Your task to perform on an android device: Go to sound settings Image 0: 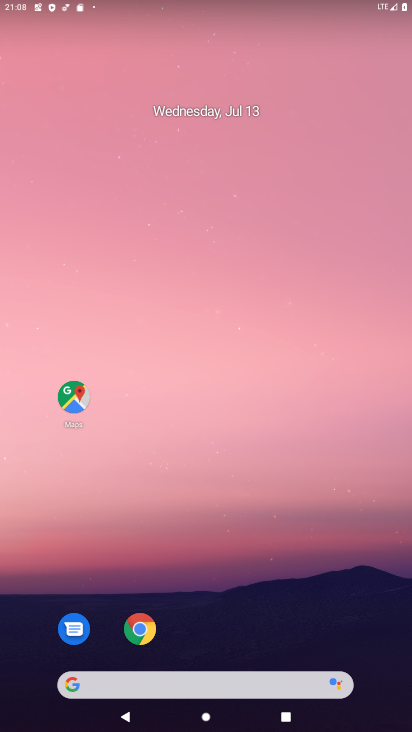
Step 0: drag from (206, 630) to (233, 56)
Your task to perform on an android device: Go to sound settings Image 1: 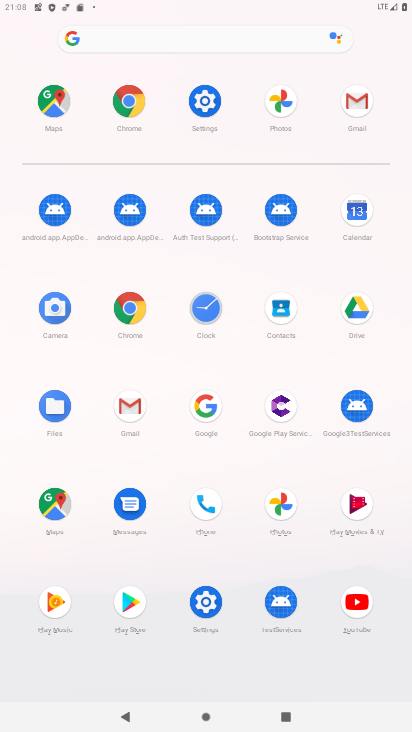
Step 1: click (208, 605)
Your task to perform on an android device: Go to sound settings Image 2: 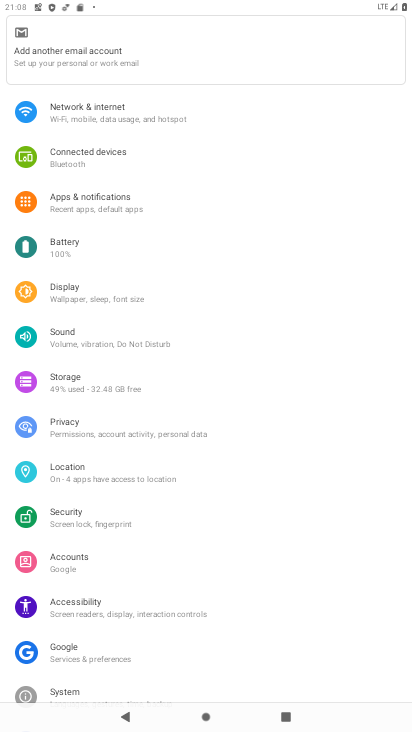
Step 2: click (56, 336)
Your task to perform on an android device: Go to sound settings Image 3: 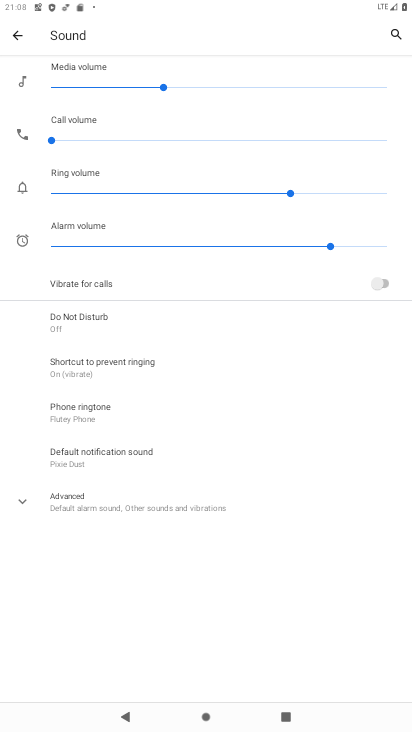
Step 3: task complete